Your task to perform on an android device: change the clock display to show seconds Image 0: 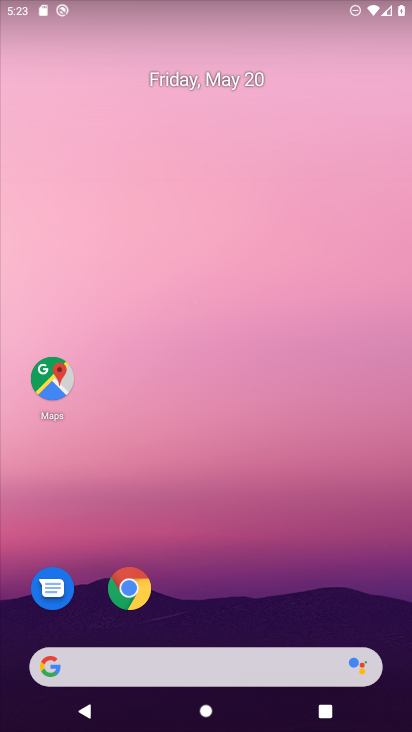
Step 0: drag from (228, 606) to (222, 191)
Your task to perform on an android device: change the clock display to show seconds Image 1: 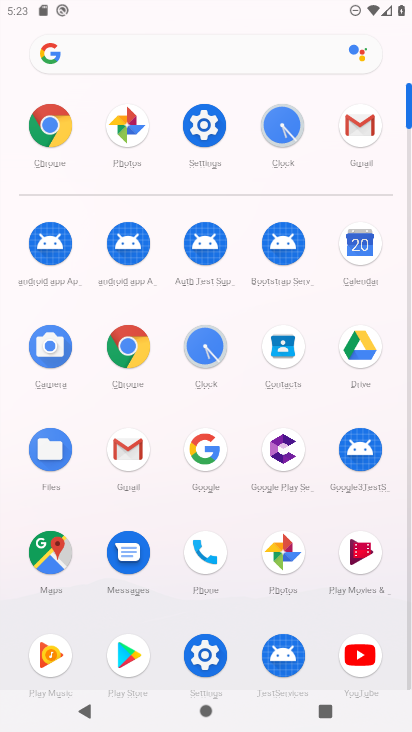
Step 1: click (206, 349)
Your task to perform on an android device: change the clock display to show seconds Image 2: 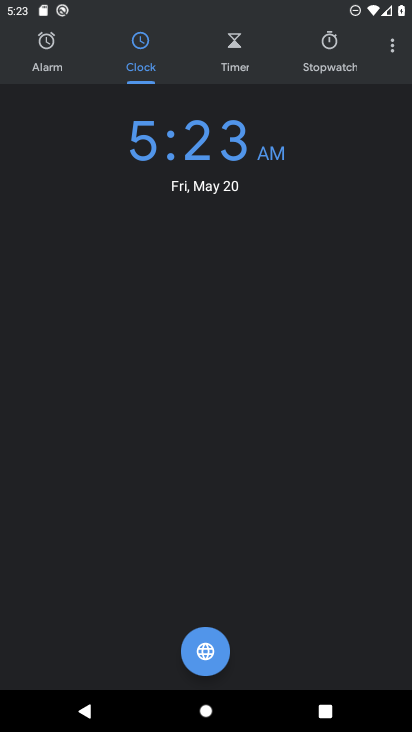
Step 2: drag from (171, 391) to (129, 411)
Your task to perform on an android device: change the clock display to show seconds Image 3: 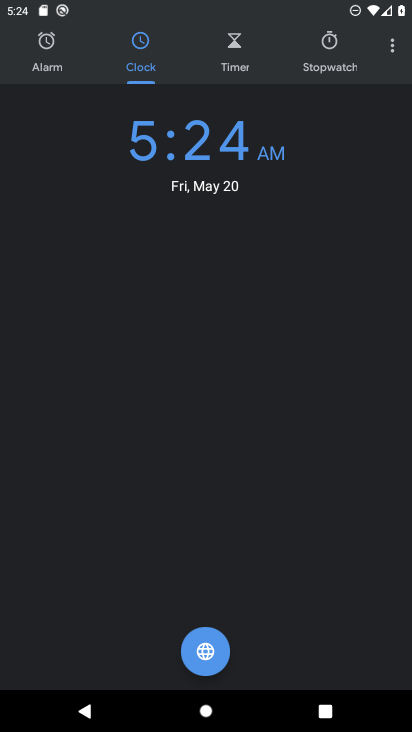
Step 3: click (395, 49)
Your task to perform on an android device: change the clock display to show seconds Image 4: 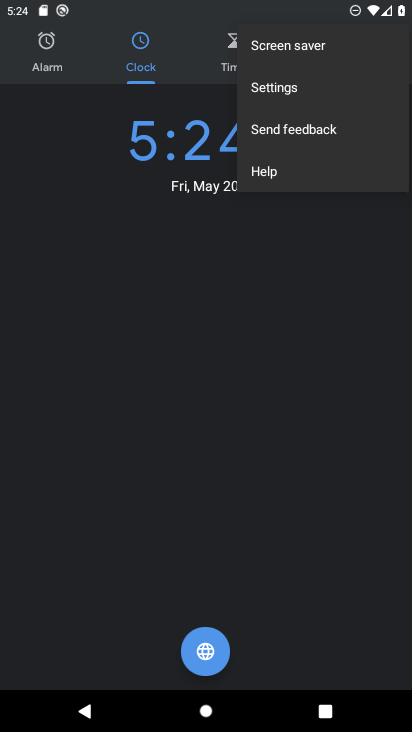
Step 4: click (292, 89)
Your task to perform on an android device: change the clock display to show seconds Image 5: 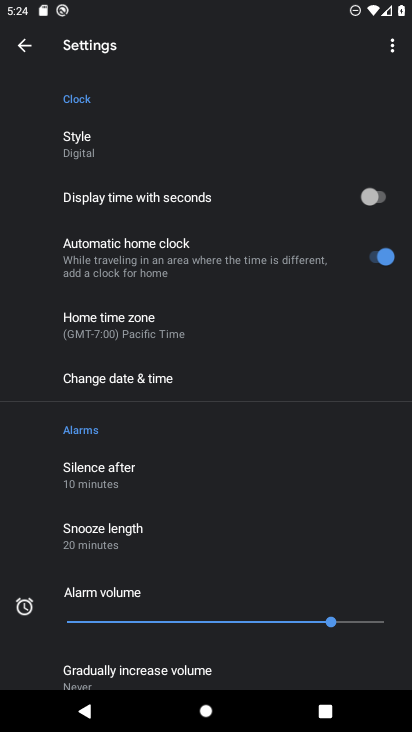
Step 5: click (386, 194)
Your task to perform on an android device: change the clock display to show seconds Image 6: 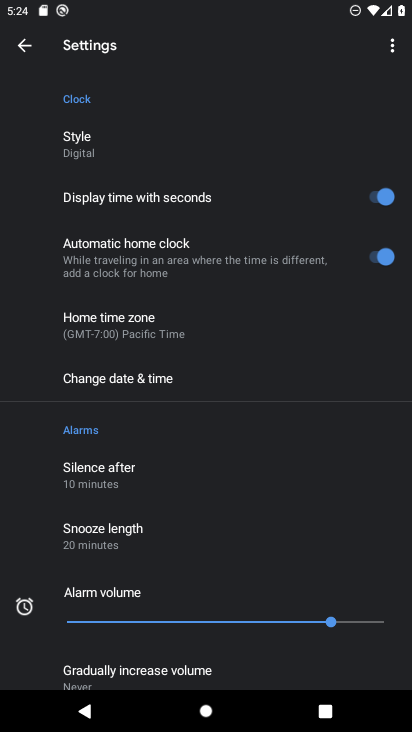
Step 6: task complete